Your task to perform on an android device: turn notification dots on Image 0: 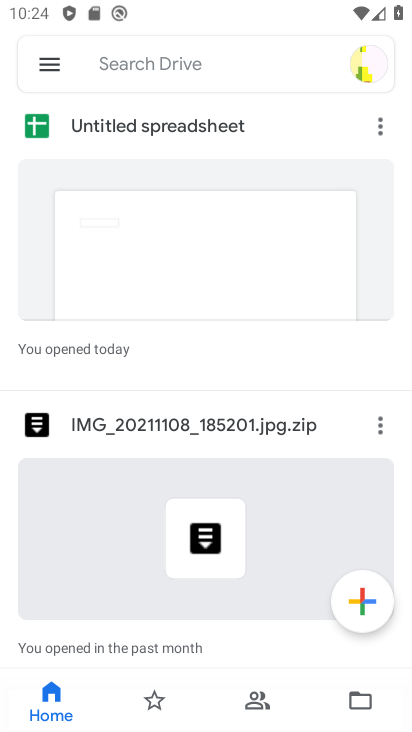
Step 0: click (52, 66)
Your task to perform on an android device: turn notification dots on Image 1: 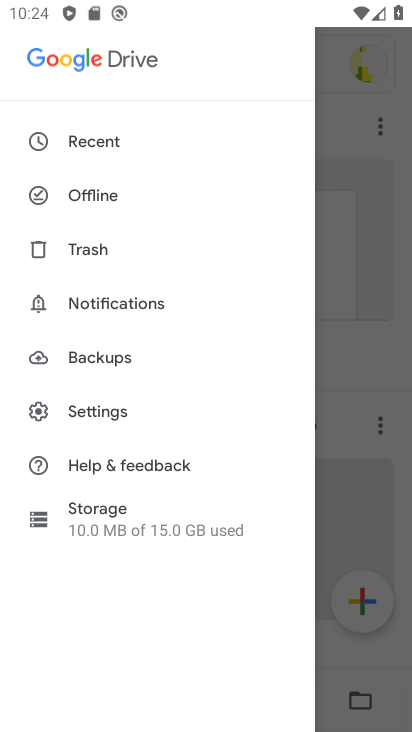
Step 1: press home button
Your task to perform on an android device: turn notification dots on Image 2: 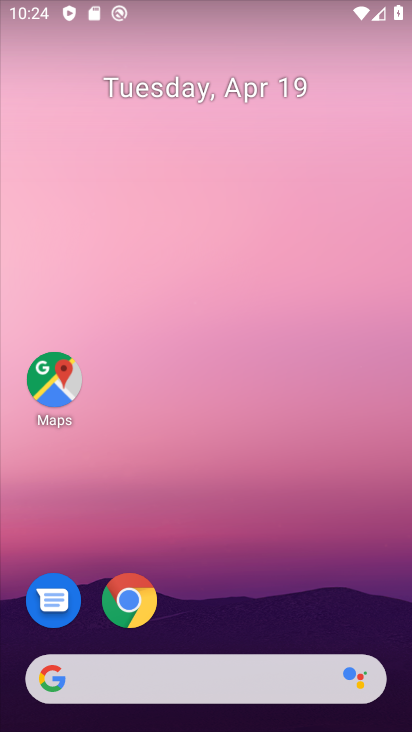
Step 2: drag from (236, 634) to (216, 10)
Your task to perform on an android device: turn notification dots on Image 3: 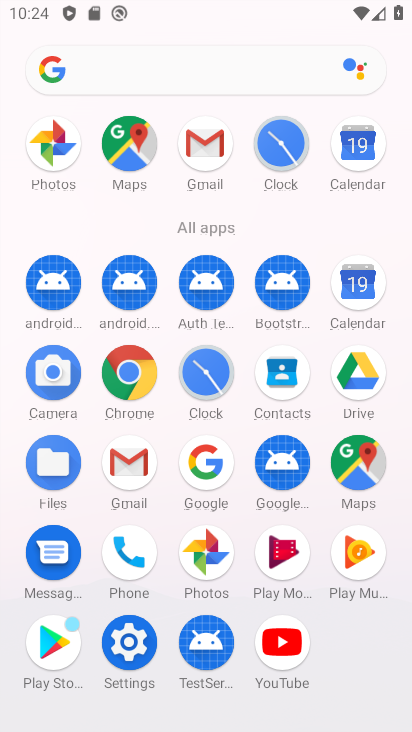
Step 3: click (131, 663)
Your task to perform on an android device: turn notification dots on Image 4: 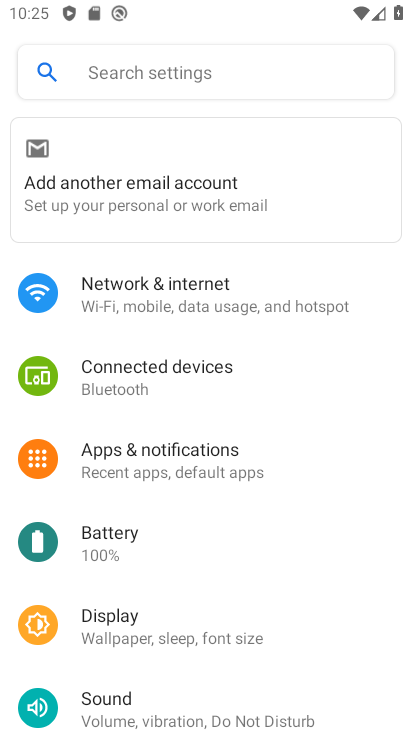
Step 4: click (189, 450)
Your task to perform on an android device: turn notification dots on Image 5: 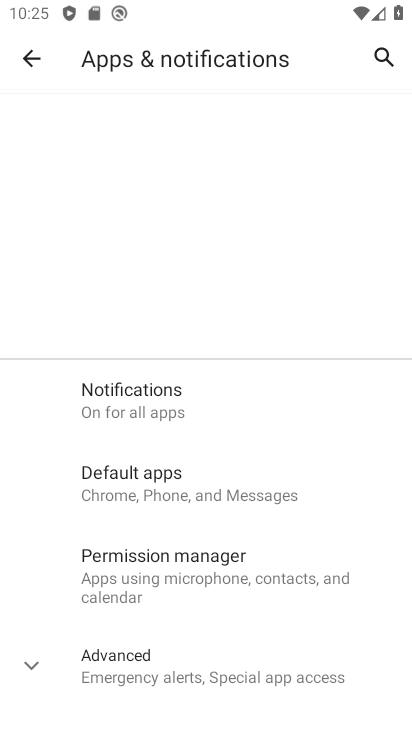
Step 5: click (142, 405)
Your task to perform on an android device: turn notification dots on Image 6: 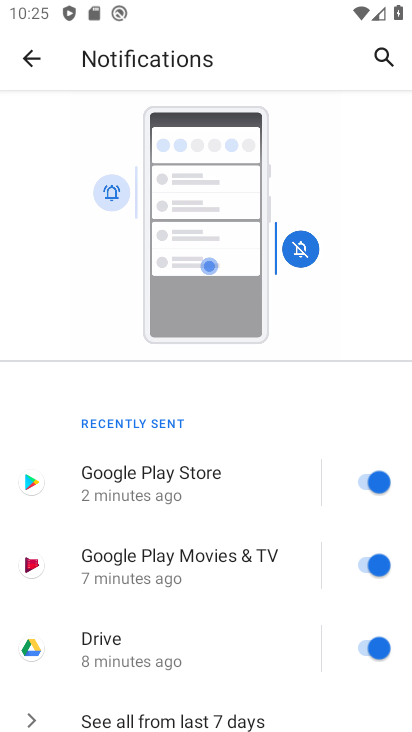
Step 6: drag from (171, 589) to (142, 77)
Your task to perform on an android device: turn notification dots on Image 7: 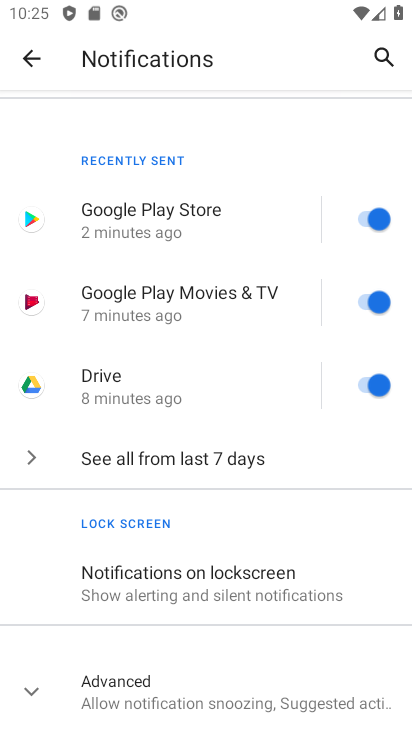
Step 7: click (193, 686)
Your task to perform on an android device: turn notification dots on Image 8: 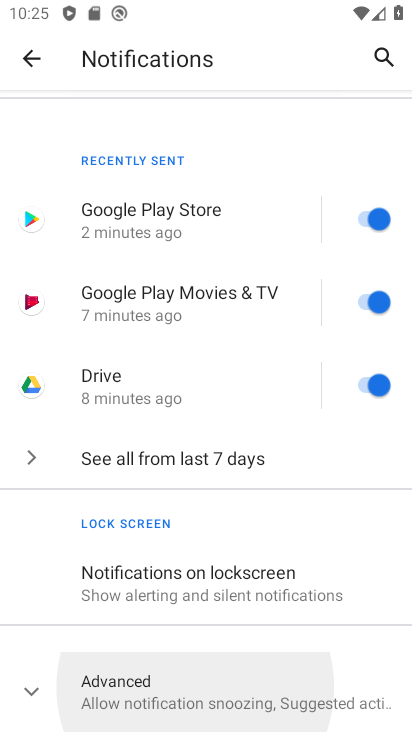
Step 8: task complete